Your task to perform on an android device: turn off notifications in google photos Image 0: 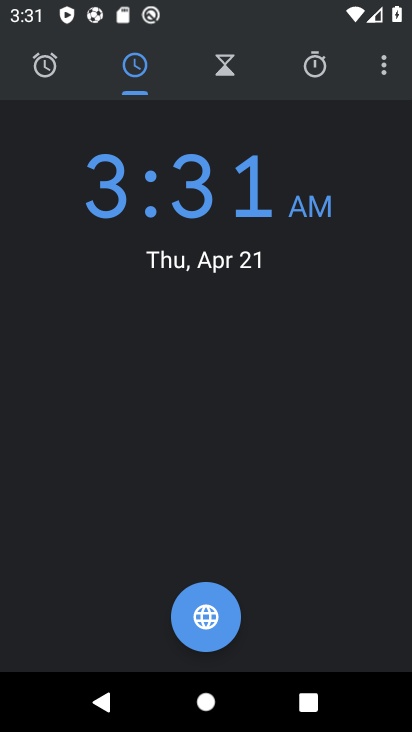
Step 0: press home button
Your task to perform on an android device: turn off notifications in google photos Image 1: 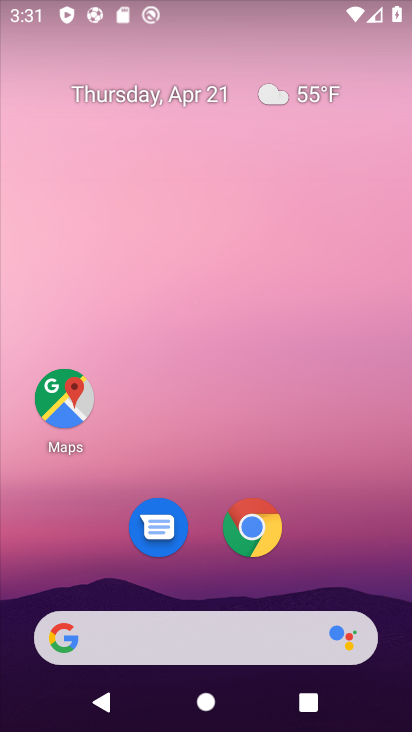
Step 1: drag from (306, 437) to (272, 73)
Your task to perform on an android device: turn off notifications in google photos Image 2: 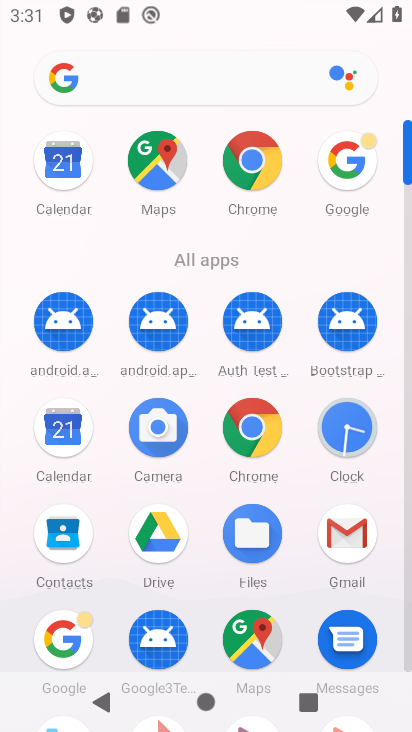
Step 2: drag from (199, 603) to (227, 330)
Your task to perform on an android device: turn off notifications in google photos Image 3: 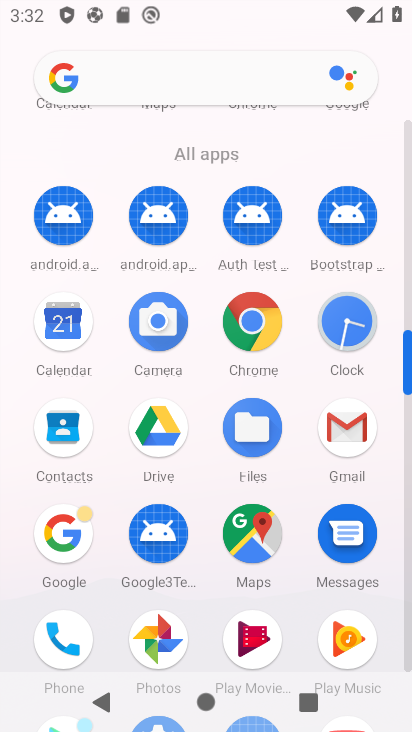
Step 3: click (163, 632)
Your task to perform on an android device: turn off notifications in google photos Image 4: 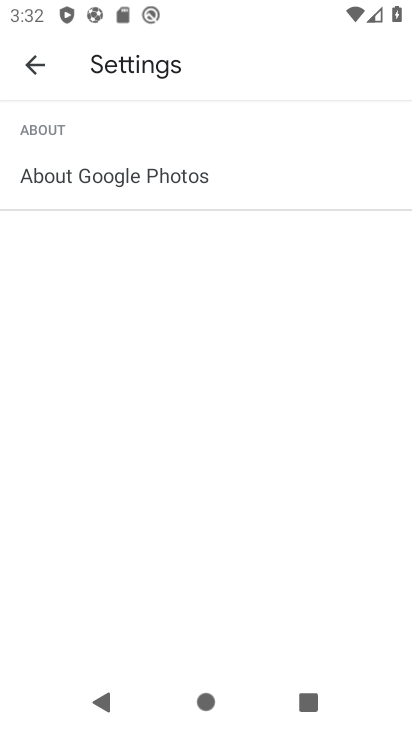
Step 4: click (38, 77)
Your task to perform on an android device: turn off notifications in google photos Image 5: 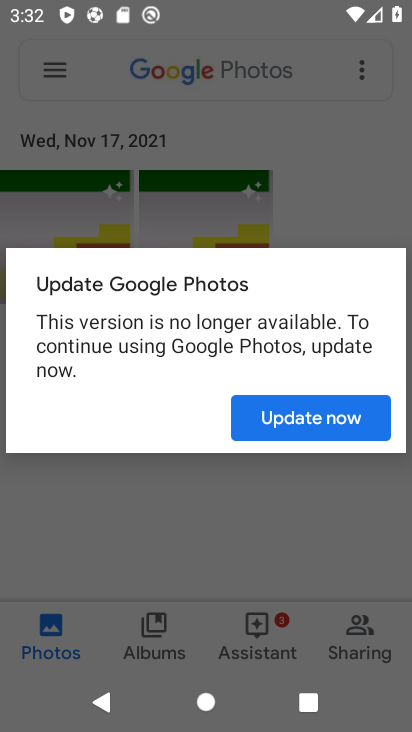
Step 5: click (301, 416)
Your task to perform on an android device: turn off notifications in google photos Image 6: 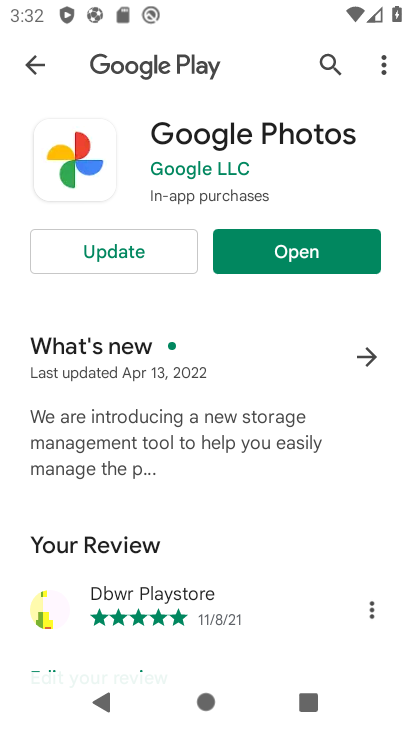
Step 6: click (291, 256)
Your task to perform on an android device: turn off notifications in google photos Image 7: 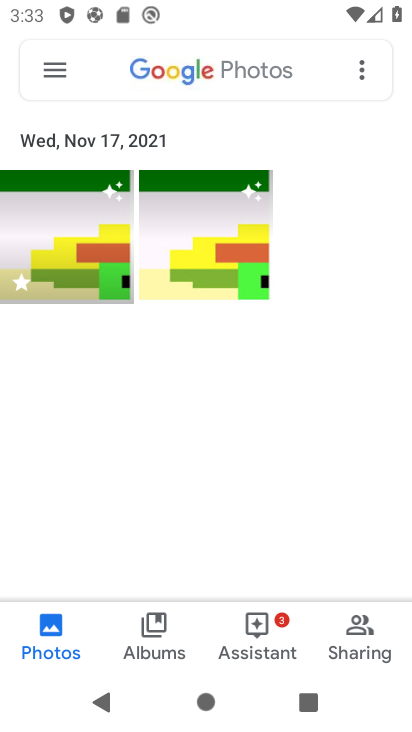
Step 7: click (53, 64)
Your task to perform on an android device: turn off notifications in google photos Image 8: 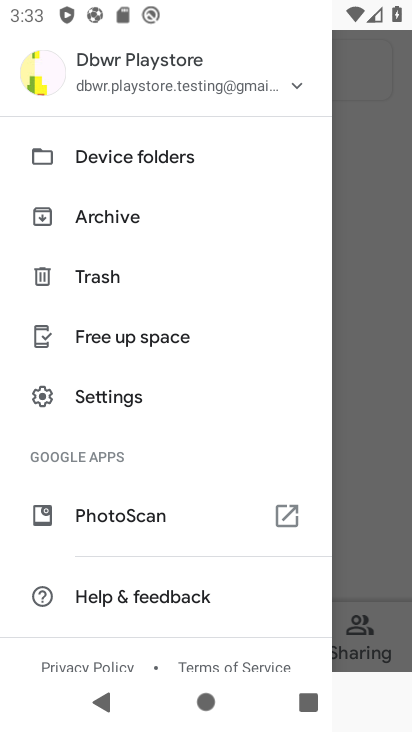
Step 8: click (78, 402)
Your task to perform on an android device: turn off notifications in google photos Image 9: 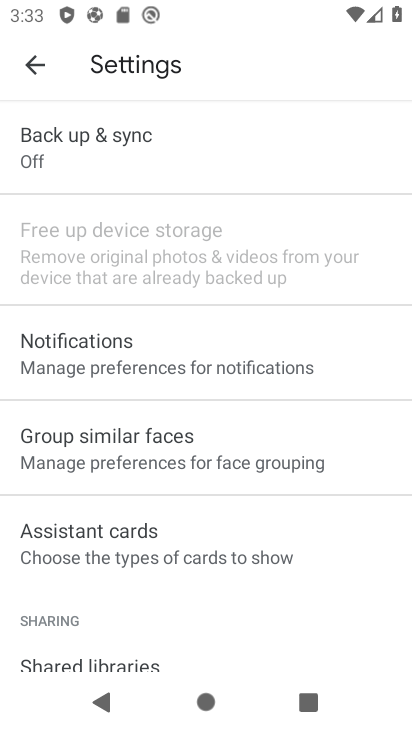
Step 9: click (106, 374)
Your task to perform on an android device: turn off notifications in google photos Image 10: 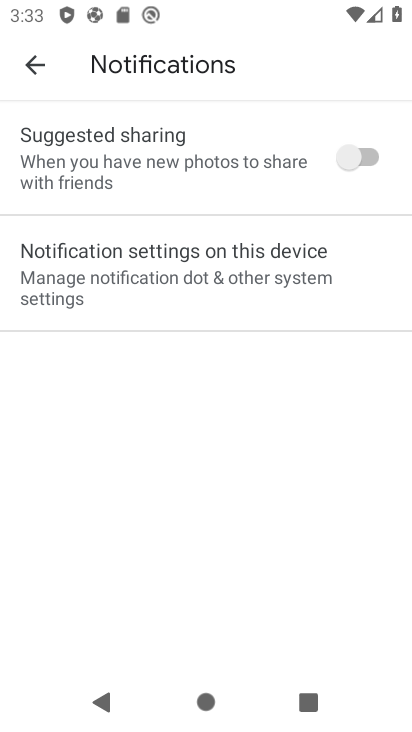
Step 10: click (231, 305)
Your task to perform on an android device: turn off notifications in google photos Image 11: 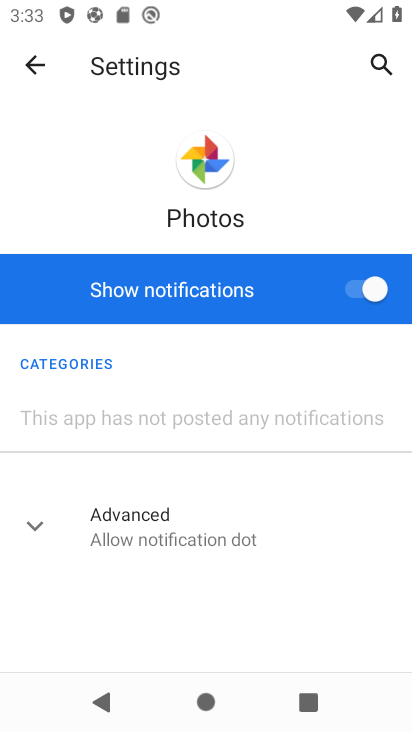
Step 11: click (358, 292)
Your task to perform on an android device: turn off notifications in google photos Image 12: 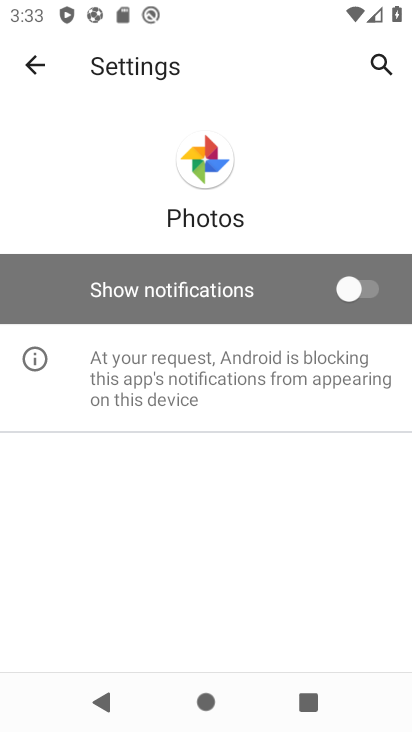
Step 12: task complete